Your task to perform on an android device: Open wifi settings Image 0: 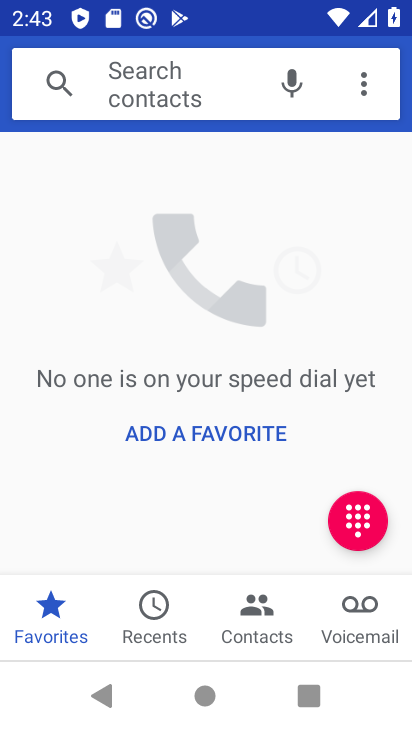
Step 0: press back button
Your task to perform on an android device: Open wifi settings Image 1: 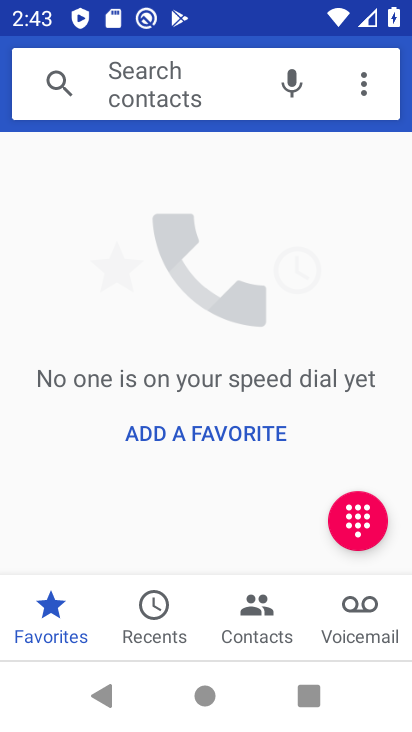
Step 1: press back button
Your task to perform on an android device: Open wifi settings Image 2: 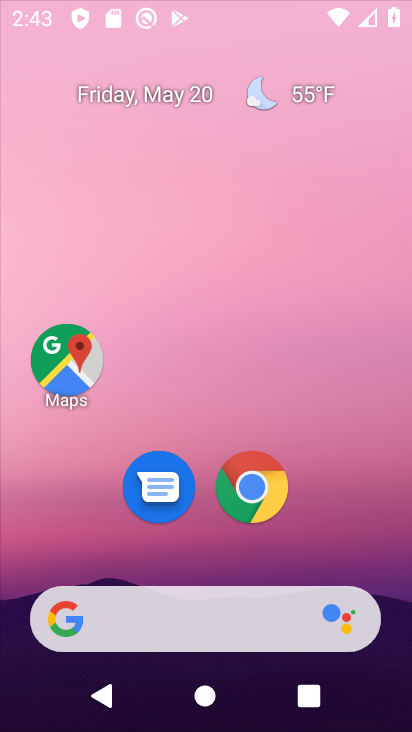
Step 2: press back button
Your task to perform on an android device: Open wifi settings Image 3: 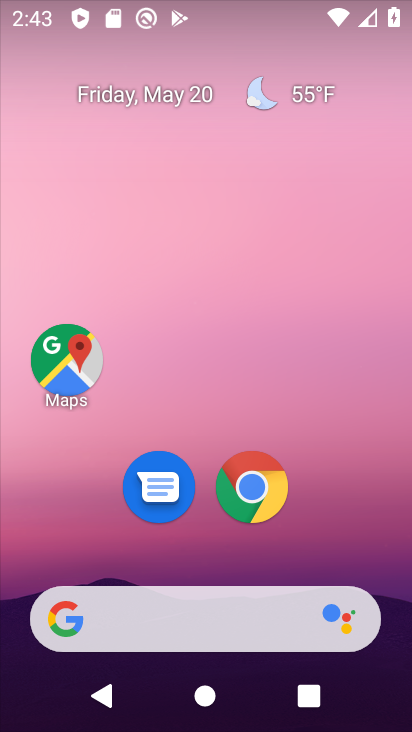
Step 3: press back button
Your task to perform on an android device: Open wifi settings Image 4: 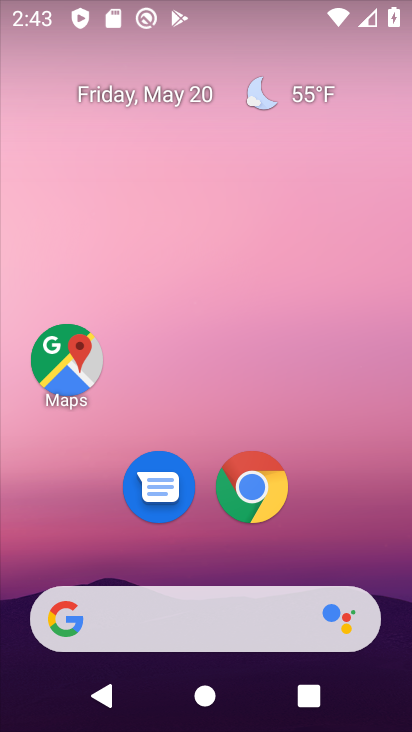
Step 4: press back button
Your task to perform on an android device: Open wifi settings Image 5: 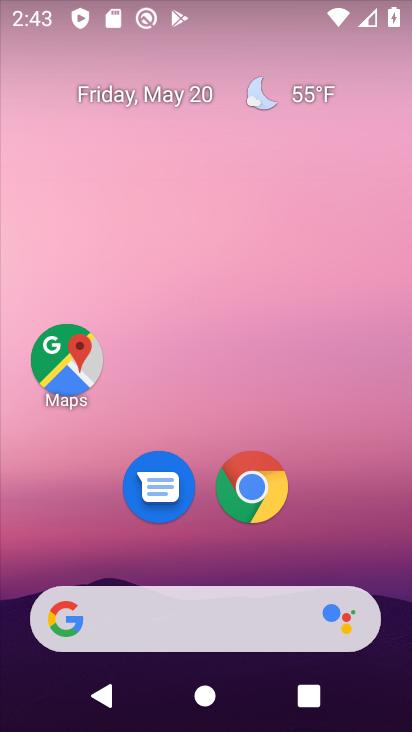
Step 5: drag from (277, 613) to (198, 7)
Your task to perform on an android device: Open wifi settings Image 6: 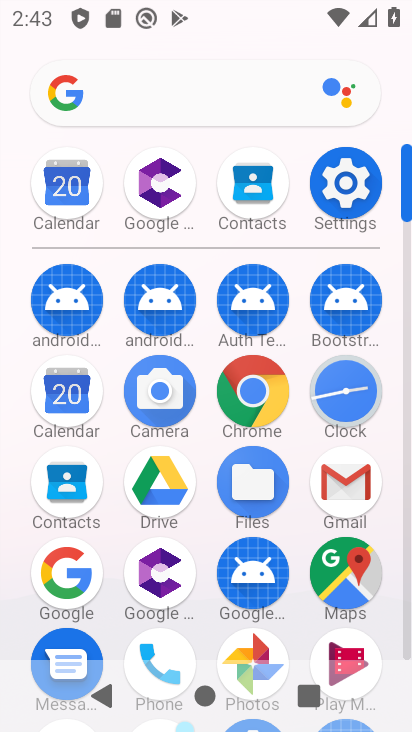
Step 6: click (192, 96)
Your task to perform on an android device: Open wifi settings Image 7: 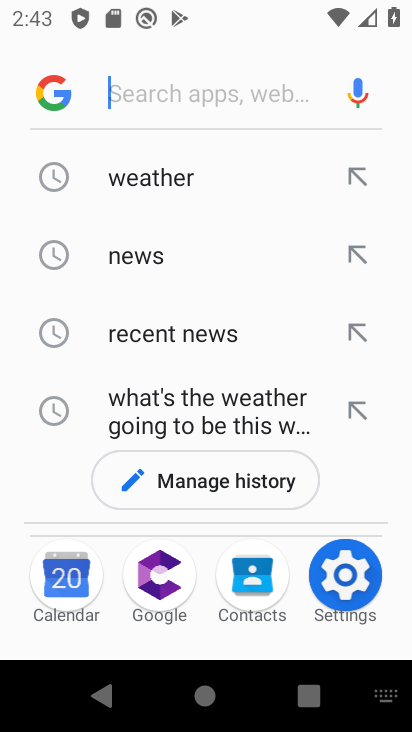
Step 7: press back button
Your task to perform on an android device: Open wifi settings Image 8: 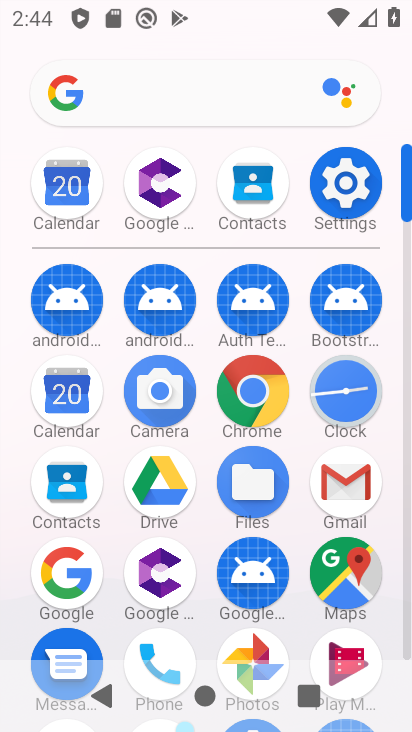
Step 8: click (342, 199)
Your task to perform on an android device: Open wifi settings Image 9: 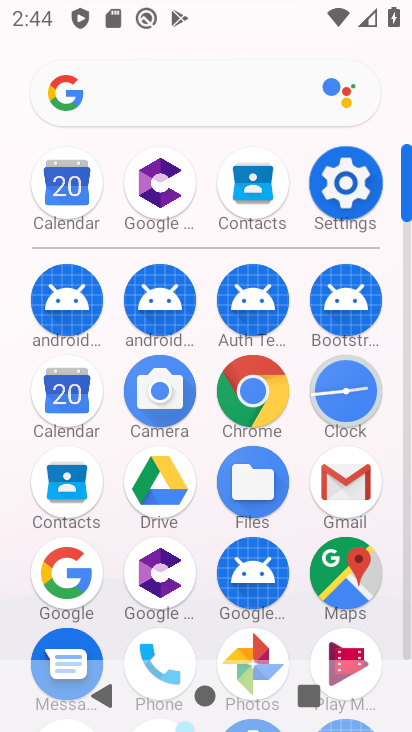
Step 9: click (342, 199)
Your task to perform on an android device: Open wifi settings Image 10: 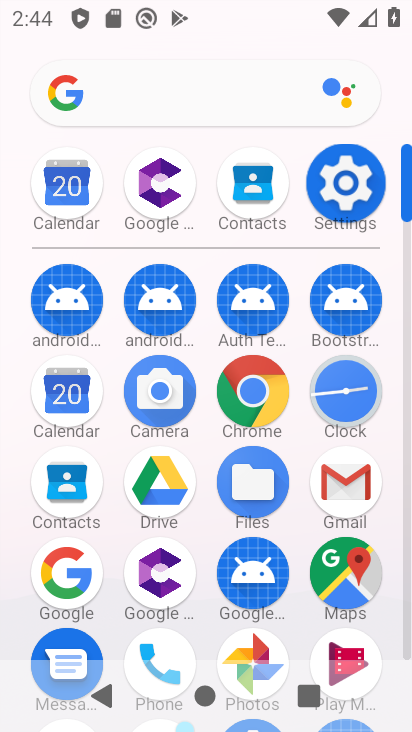
Step 10: click (342, 199)
Your task to perform on an android device: Open wifi settings Image 11: 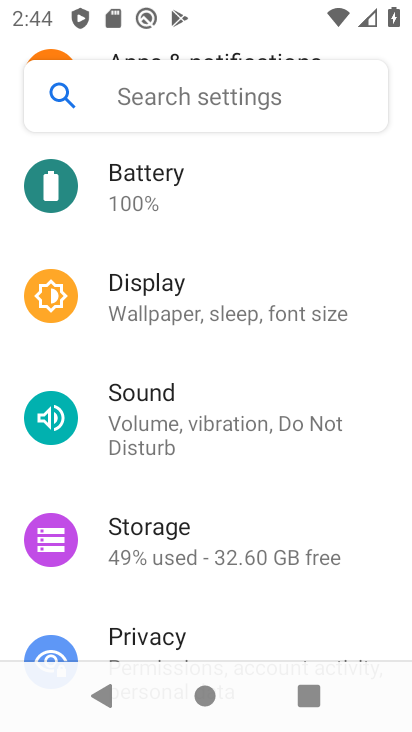
Step 11: drag from (153, 250) to (184, 411)
Your task to perform on an android device: Open wifi settings Image 12: 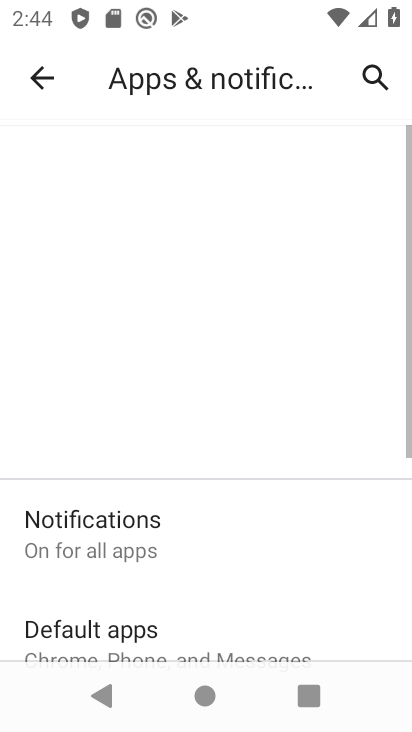
Step 12: drag from (183, 273) to (181, 585)
Your task to perform on an android device: Open wifi settings Image 13: 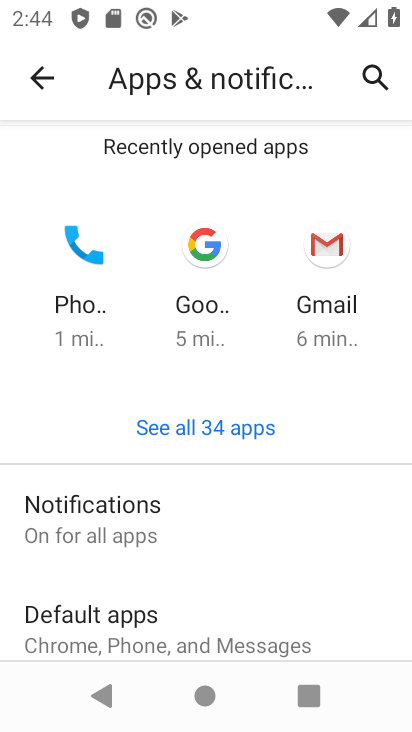
Step 13: click (35, 62)
Your task to perform on an android device: Open wifi settings Image 14: 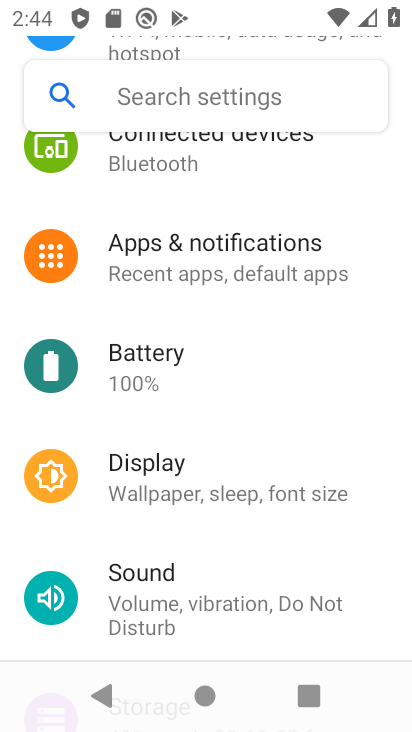
Step 14: drag from (155, 205) to (208, 506)
Your task to perform on an android device: Open wifi settings Image 15: 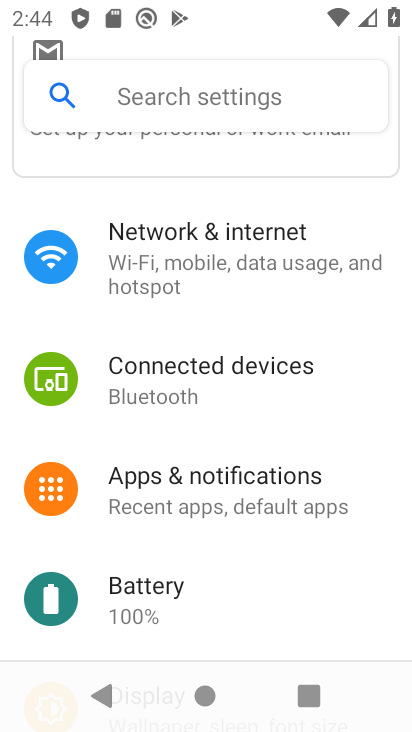
Step 15: drag from (197, 274) to (226, 556)
Your task to perform on an android device: Open wifi settings Image 16: 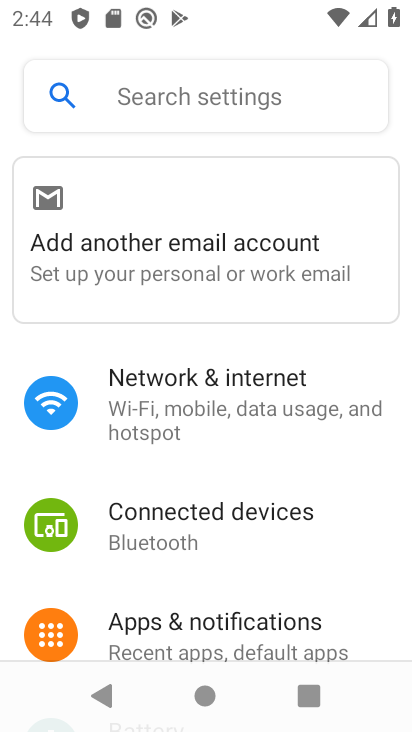
Step 16: drag from (163, 217) to (174, 464)
Your task to perform on an android device: Open wifi settings Image 17: 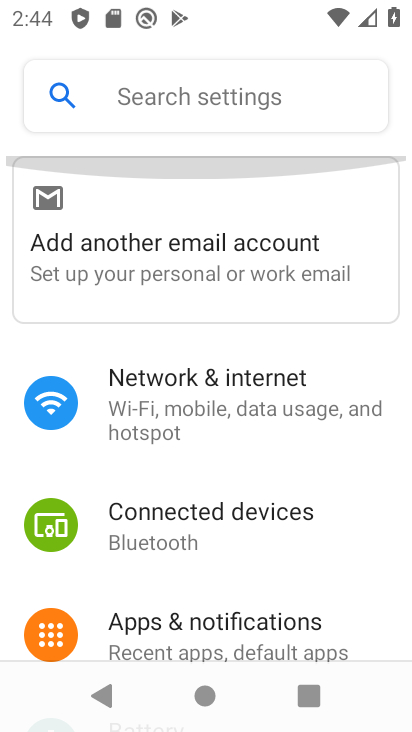
Step 17: drag from (156, 255) to (166, 554)
Your task to perform on an android device: Open wifi settings Image 18: 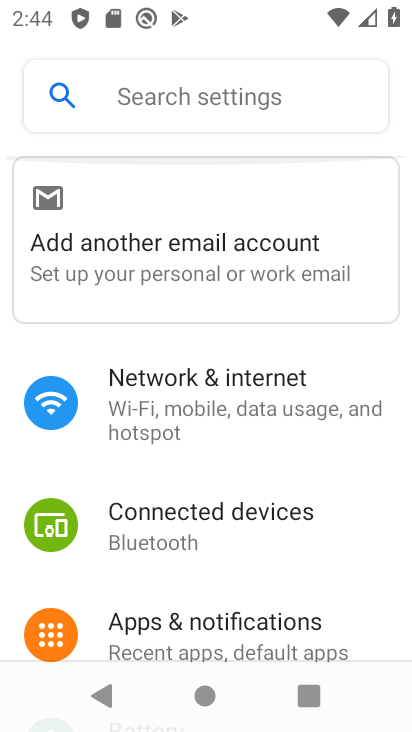
Step 18: drag from (122, 283) to (174, 540)
Your task to perform on an android device: Open wifi settings Image 19: 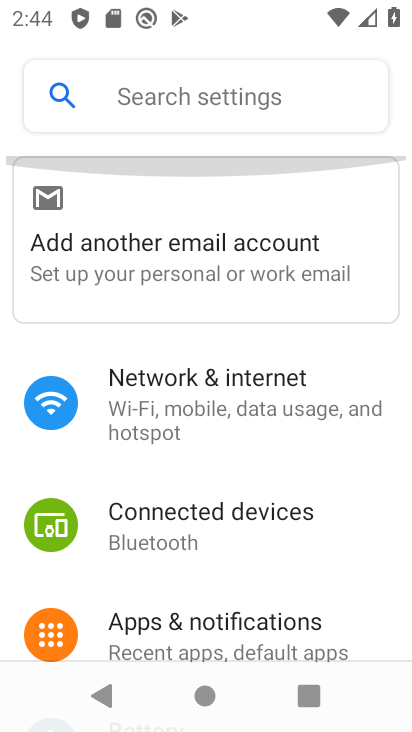
Step 19: drag from (171, 283) to (252, 575)
Your task to perform on an android device: Open wifi settings Image 20: 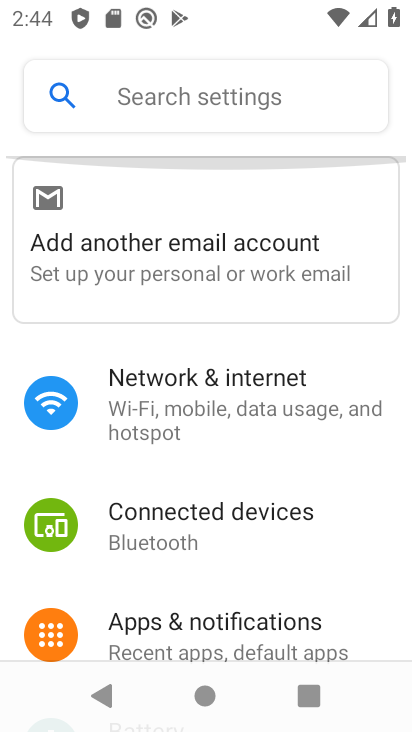
Step 20: drag from (199, 281) to (194, 463)
Your task to perform on an android device: Open wifi settings Image 21: 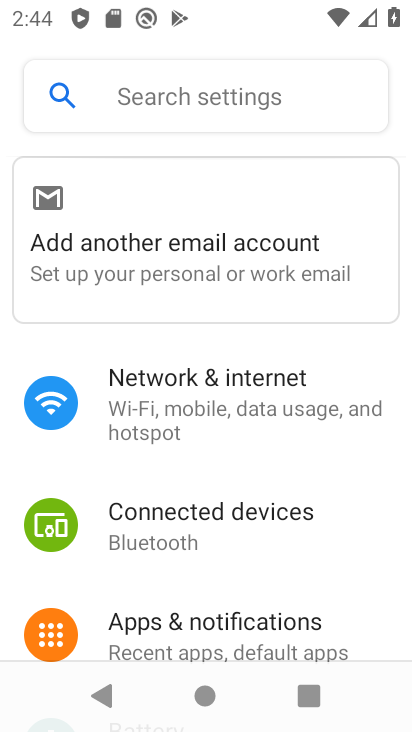
Step 21: drag from (154, 192) to (278, 514)
Your task to perform on an android device: Open wifi settings Image 22: 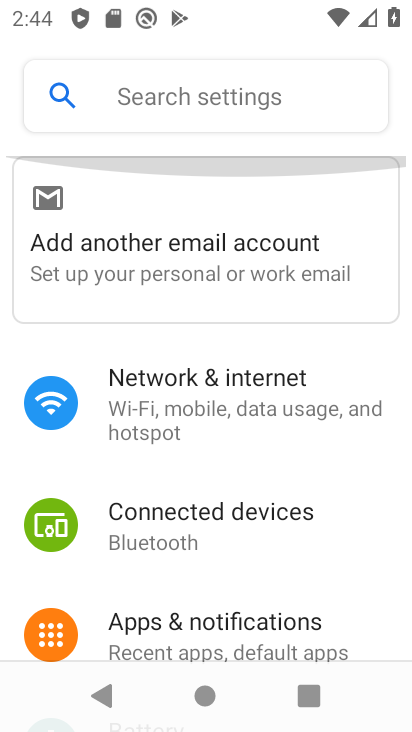
Step 22: drag from (205, 344) to (248, 556)
Your task to perform on an android device: Open wifi settings Image 23: 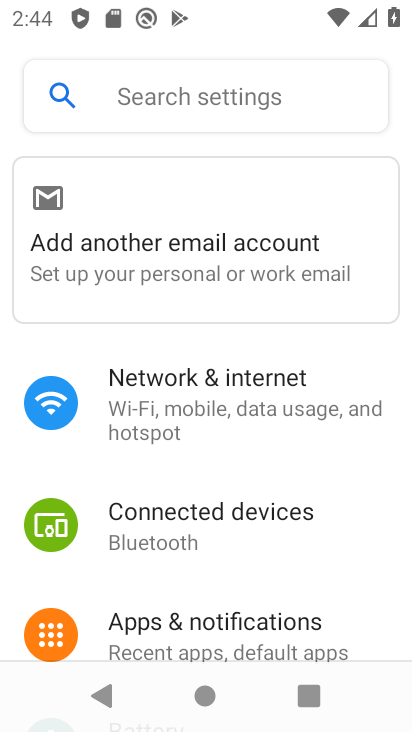
Step 23: click (205, 401)
Your task to perform on an android device: Open wifi settings Image 24: 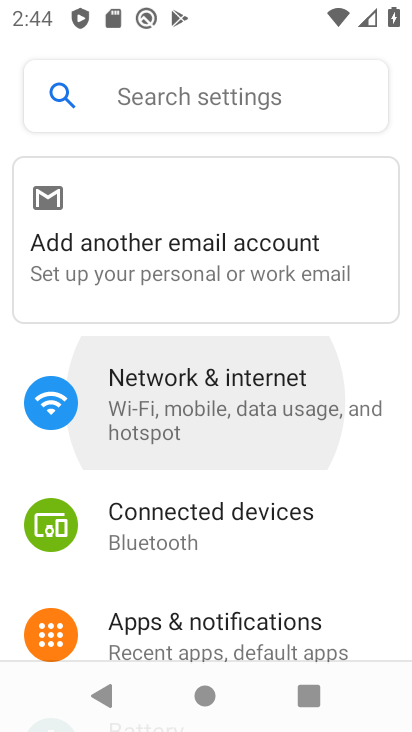
Step 24: click (204, 401)
Your task to perform on an android device: Open wifi settings Image 25: 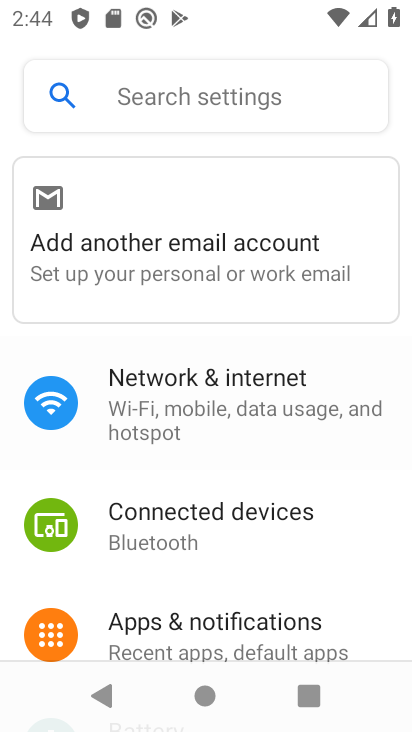
Step 25: click (204, 401)
Your task to perform on an android device: Open wifi settings Image 26: 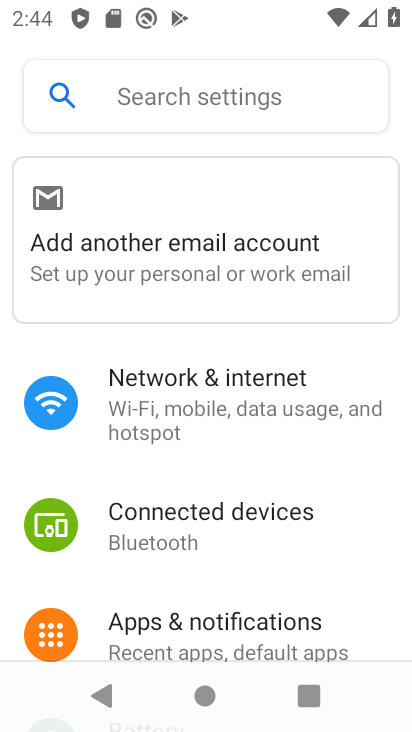
Step 26: click (204, 400)
Your task to perform on an android device: Open wifi settings Image 27: 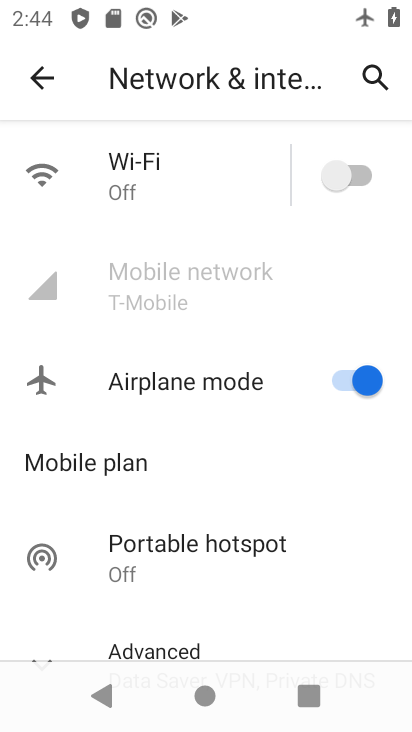
Step 27: click (325, 164)
Your task to perform on an android device: Open wifi settings Image 28: 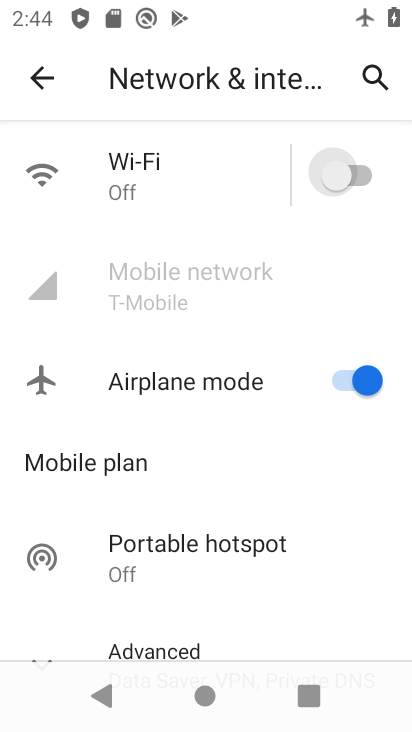
Step 28: click (339, 168)
Your task to perform on an android device: Open wifi settings Image 29: 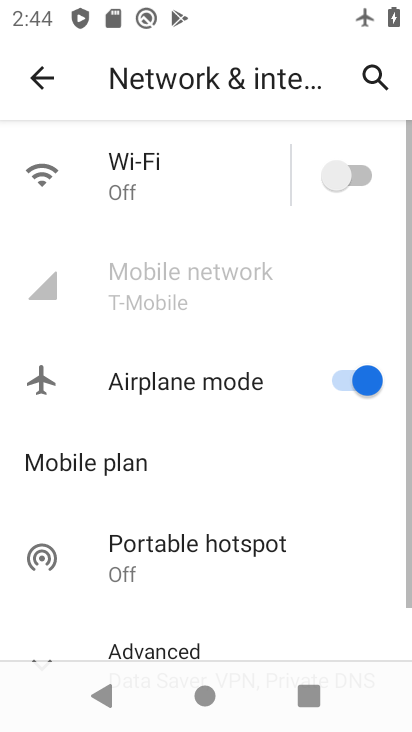
Step 29: click (369, 389)
Your task to perform on an android device: Open wifi settings Image 30: 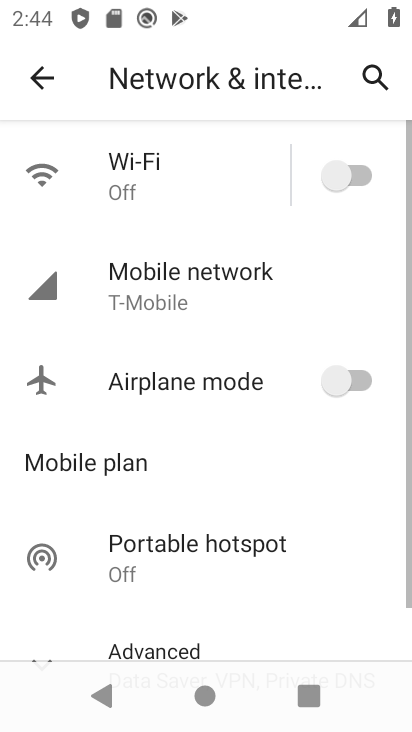
Step 30: click (340, 177)
Your task to perform on an android device: Open wifi settings Image 31: 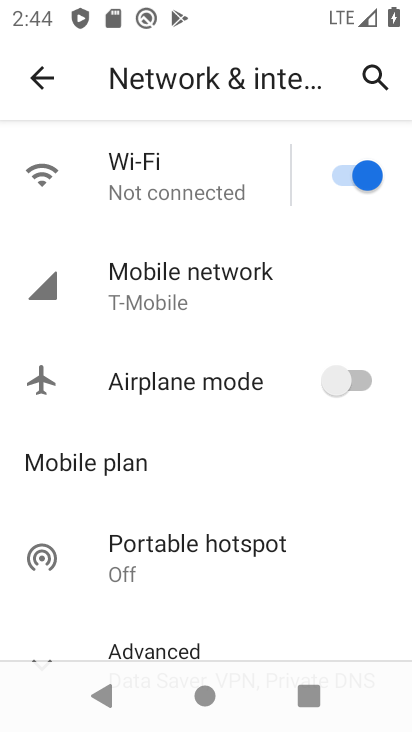
Step 31: task complete